Your task to perform on an android device: check storage Image 0: 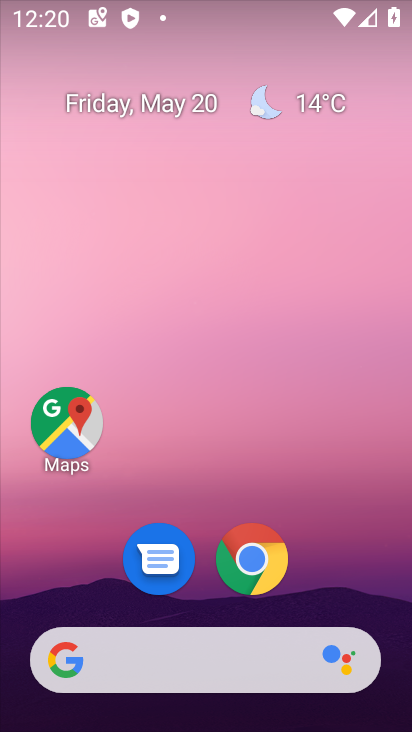
Step 0: drag from (356, 586) to (339, 106)
Your task to perform on an android device: check storage Image 1: 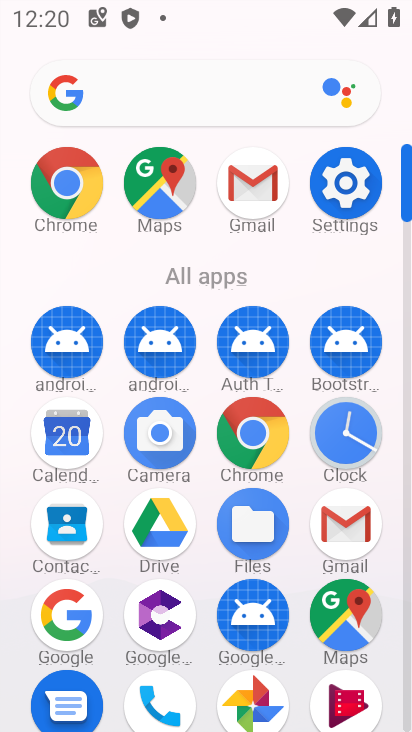
Step 1: click (359, 174)
Your task to perform on an android device: check storage Image 2: 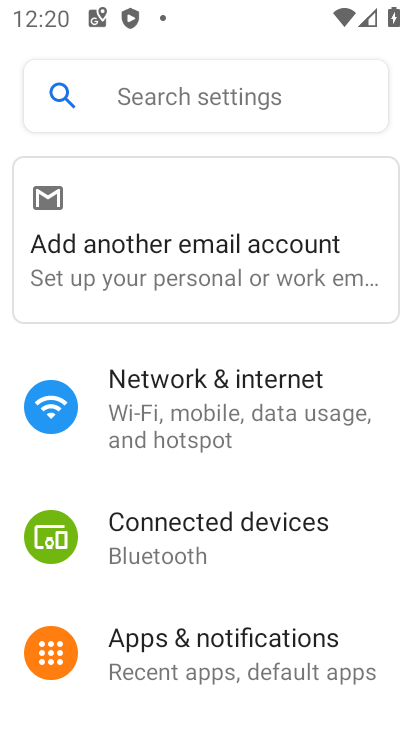
Step 2: drag from (121, 601) to (172, 196)
Your task to perform on an android device: check storage Image 3: 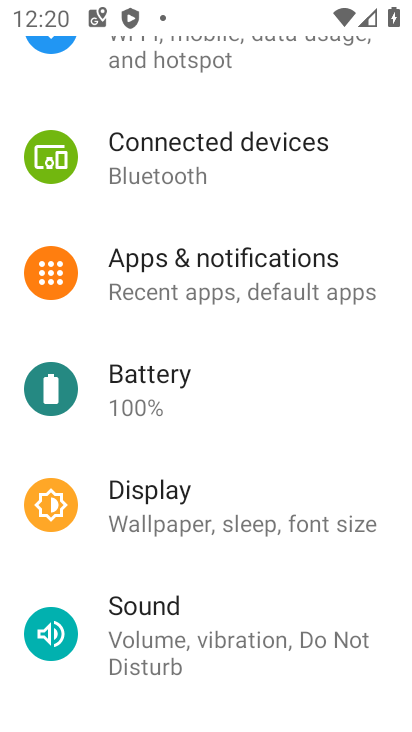
Step 3: drag from (170, 610) to (233, 180)
Your task to perform on an android device: check storage Image 4: 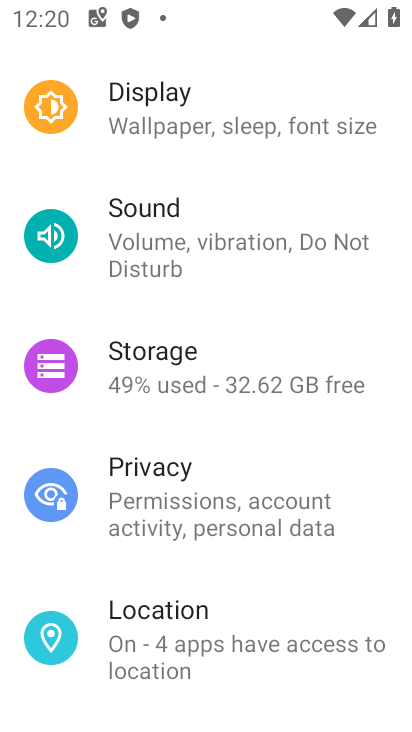
Step 4: click (178, 336)
Your task to perform on an android device: check storage Image 5: 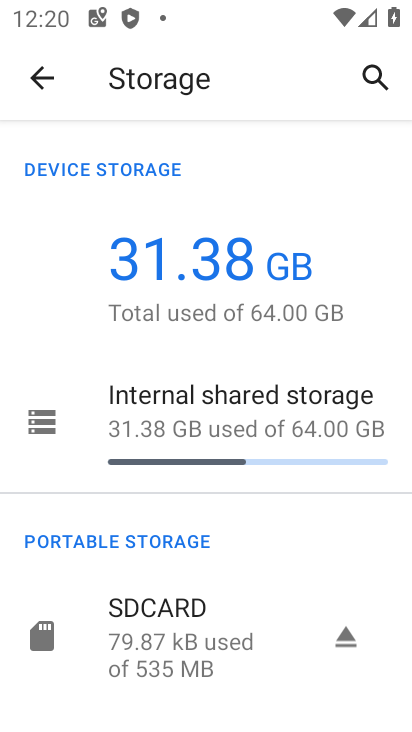
Step 5: task complete